Your task to perform on an android device: Open the web browser Image 0: 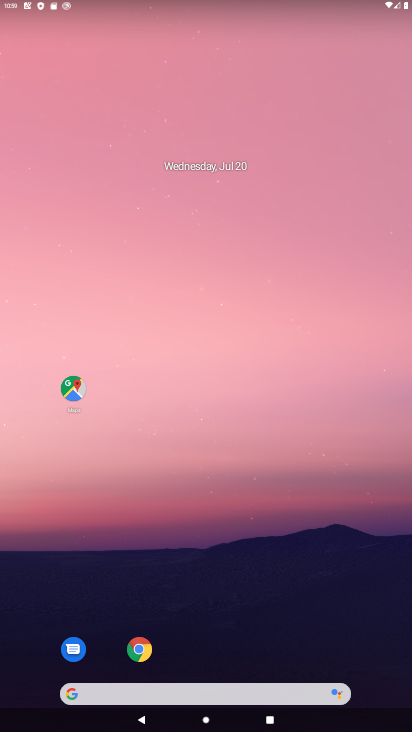
Step 0: click (151, 640)
Your task to perform on an android device: Open the web browser Image 1: 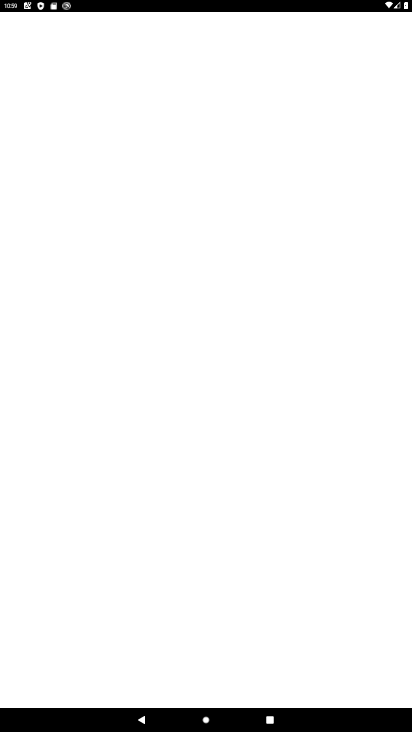
Step 1: task complete